Your task to perform on an android device: Open internet settings Image 0: 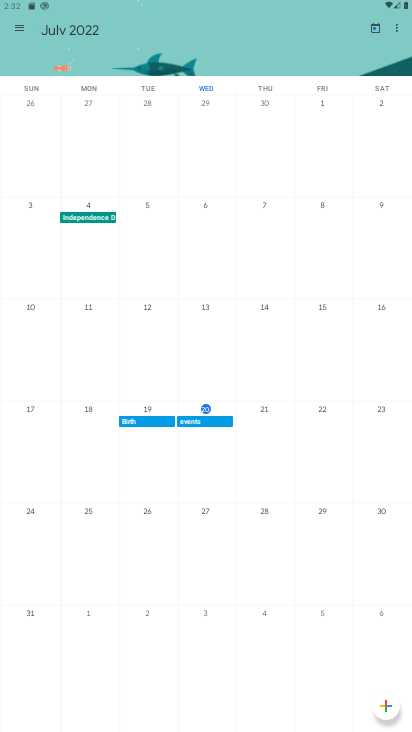
Step 0: press home button
Your task to perform on an android device: Open internet settings Image 1: 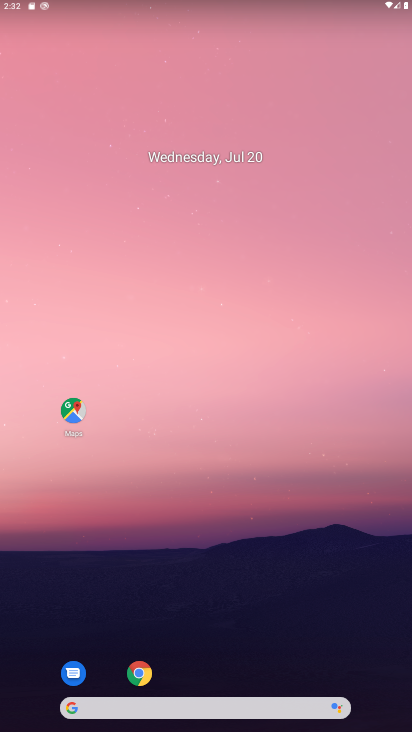
Step 1: drag from (214, 648) to (283, 0)
Your task to perform on an android device: Open internet settings Image 2: 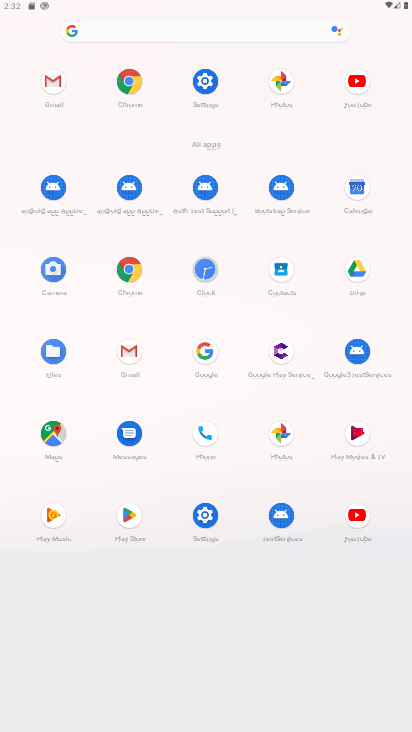
Step 2: click (207, 508)
Your task to perform on an android device: Open internet settings Image 3: 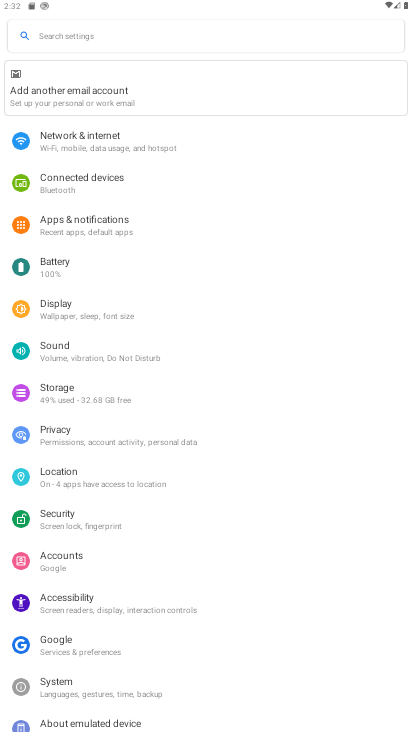
Step 3: click (106, 160)
Your task to perform on an android device: Open internet settings Image 4: 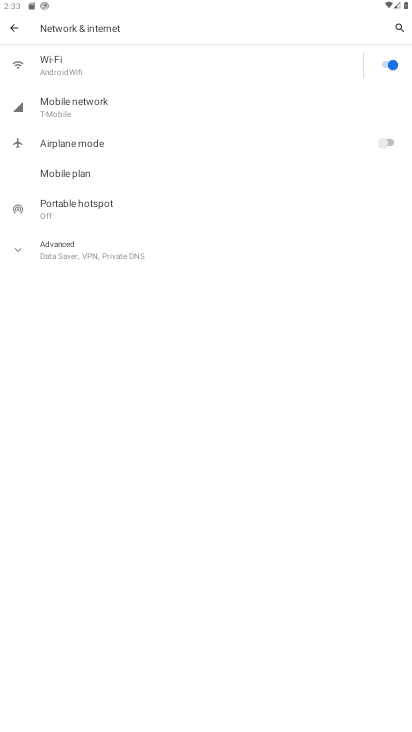
Step 4: task complete